Your task to perform on an android device: toggle pop-ups in chrome Image 0: 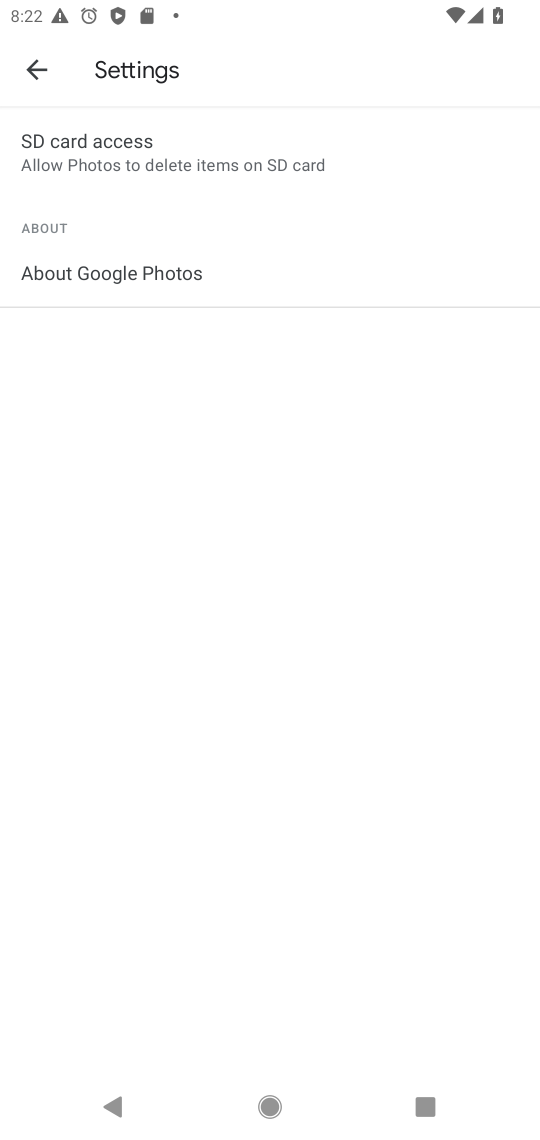
Step 0: press home button
Your task to perform on an android device: toggle pop-ups in chrome Image 1: 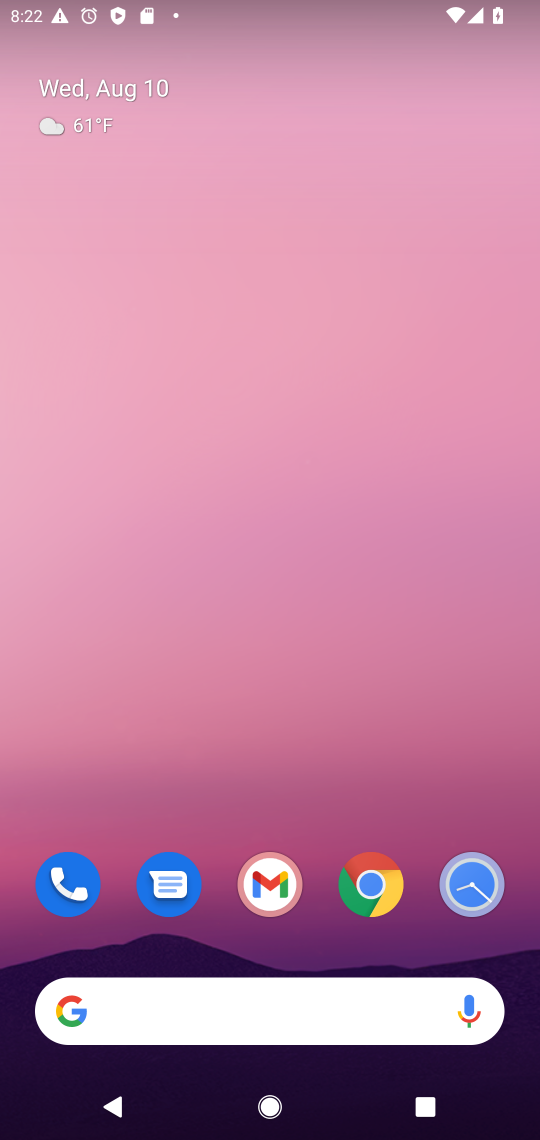
Step 1: click (379, 886)
Your task to perform on an android device: toggle pop-ups in chrome Image 2: 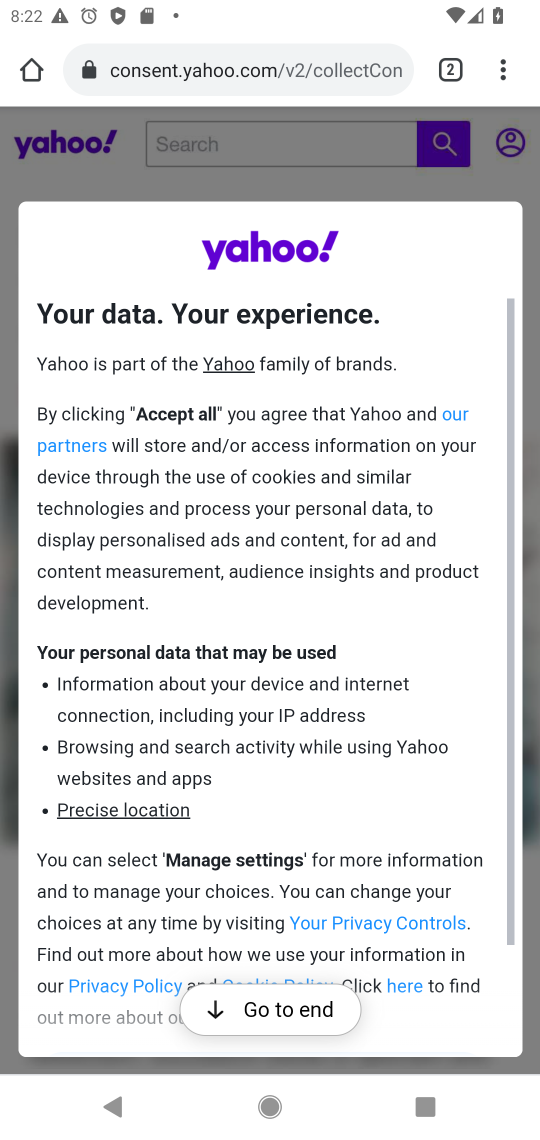
Step 2: click (511, 79)
Your task to perform on an android device: toggle pop-ups in chrome Image 3: 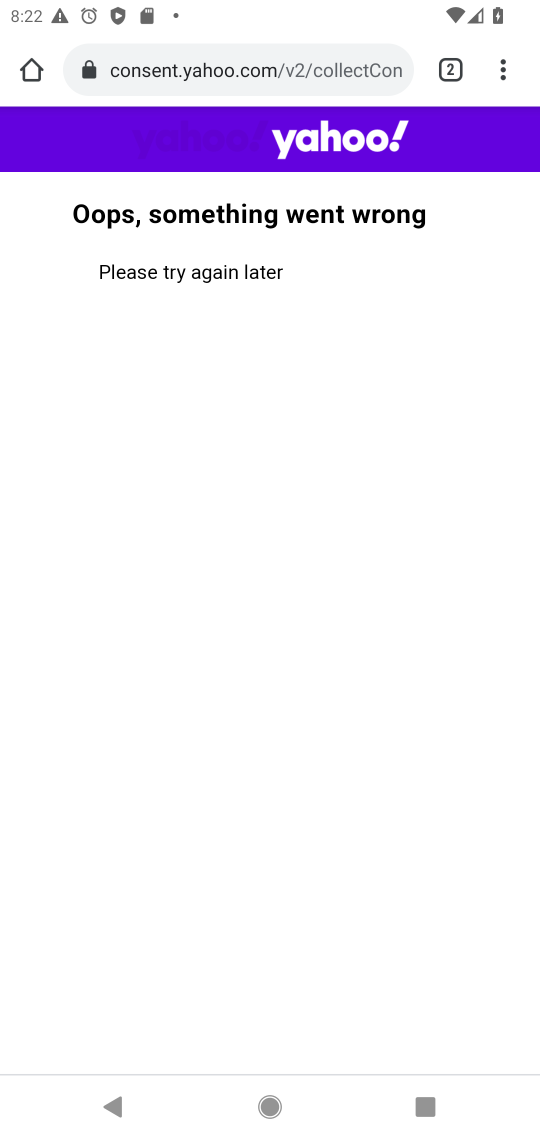
Step 3: click (511, 79)
Your task to perform on an android device: toggle pop-ups in chrome Image 4: 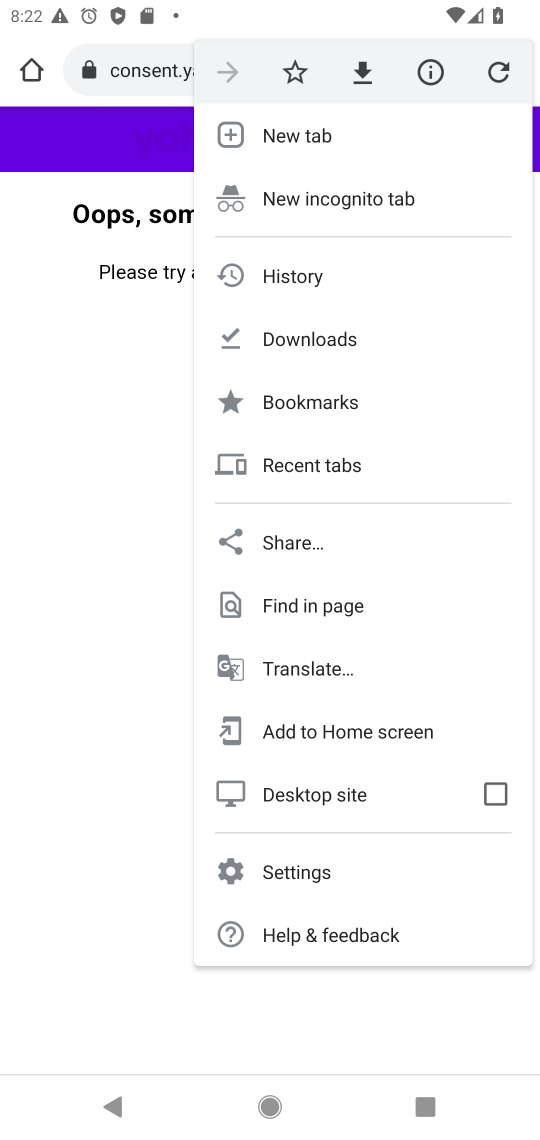
Step 4: click (287, 869)
Your task to perform on an android device: toggle pop-ups in chrome Image 5: 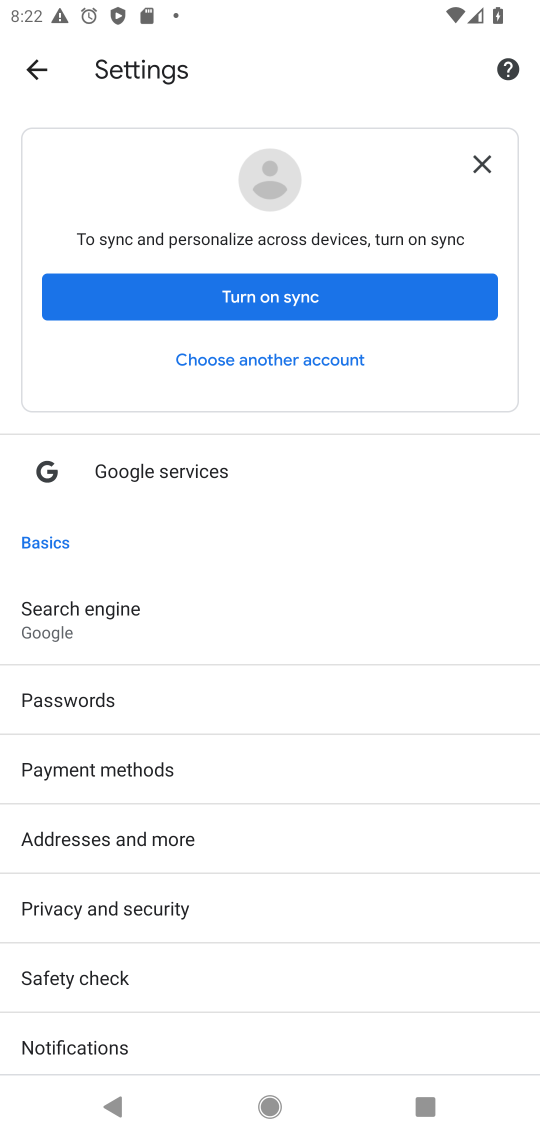
Step 5: drag from (294, 967) to (323, 542)
Your task to perform on an android device: toggle pop-ups in chrome Image 6: 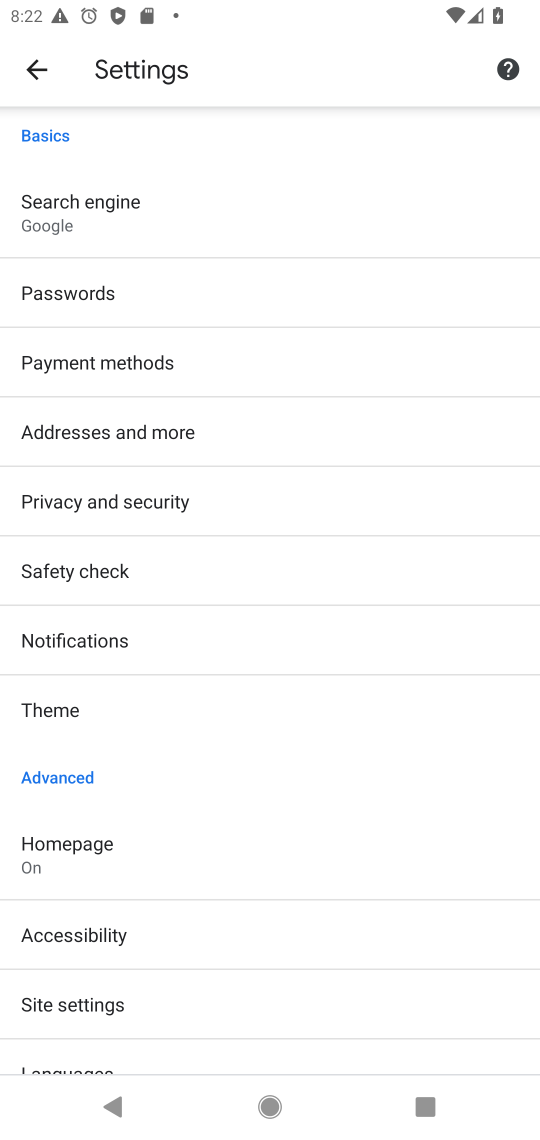
Step 6: click (89, 990)
Your task to perform on an android device: toggle pop-ups in chrome Image 7: 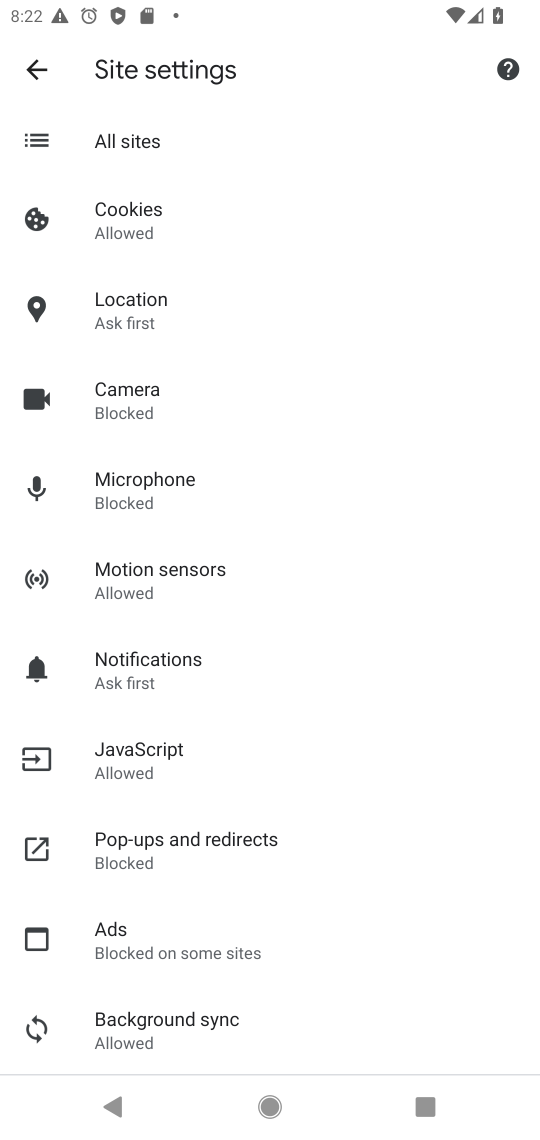
Step 7: click (154, 846)
Your task to perform on an android device: toggle pop-ups in chrome Image 8: 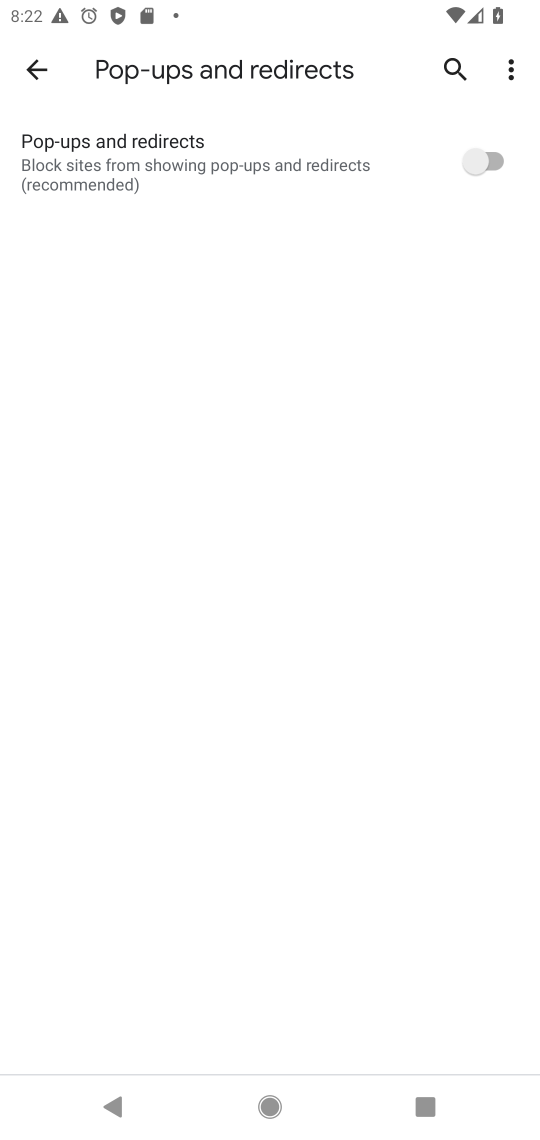
Step 8: click (477, 150)
Your task to perform on an android device: toggle pop-ups in chrome Image 9: 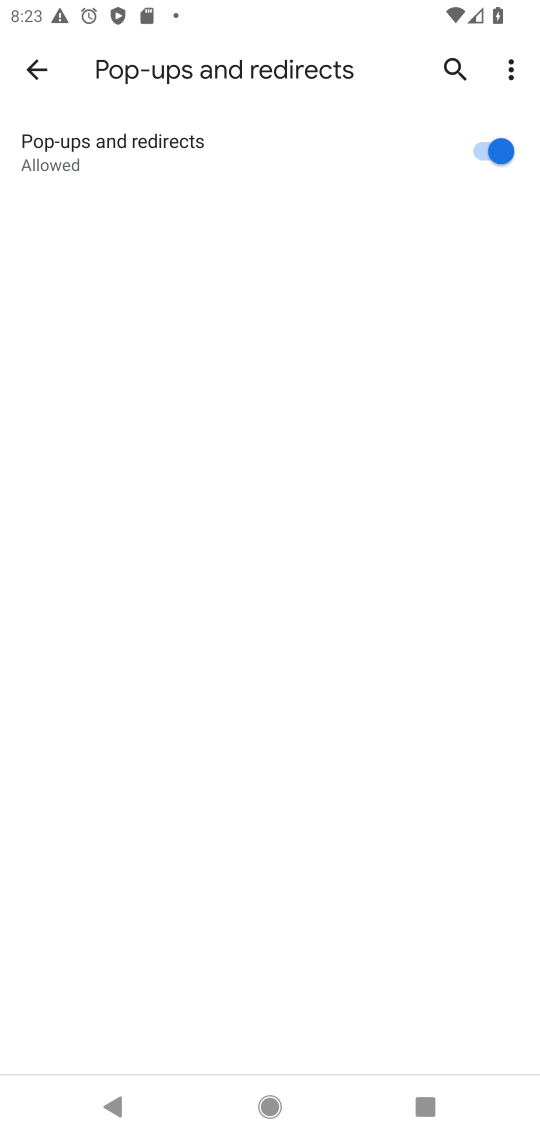
Step 9: task complete